Your task to perform on an android device: Clear all items from cart on ebay.com. Add logitech g903 to the cart on ebay.com, then select checkout. Image 0: 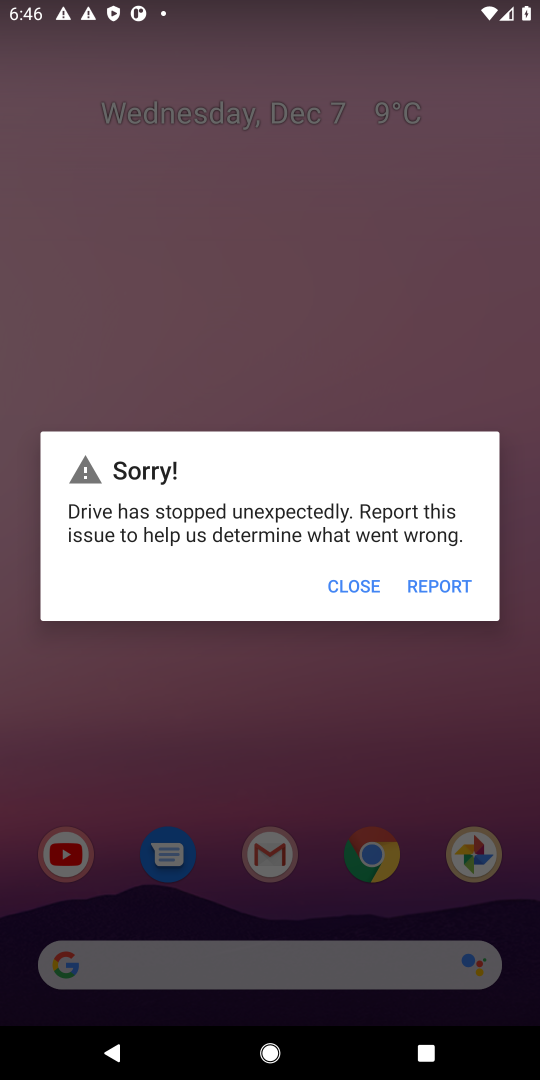
Step 0: click (353, 576)
Your task to perform on an android device: Clear all items from cart on ebay.com. Add logitech g903 to the cart on ebay.com, then select checkout. Image 1: 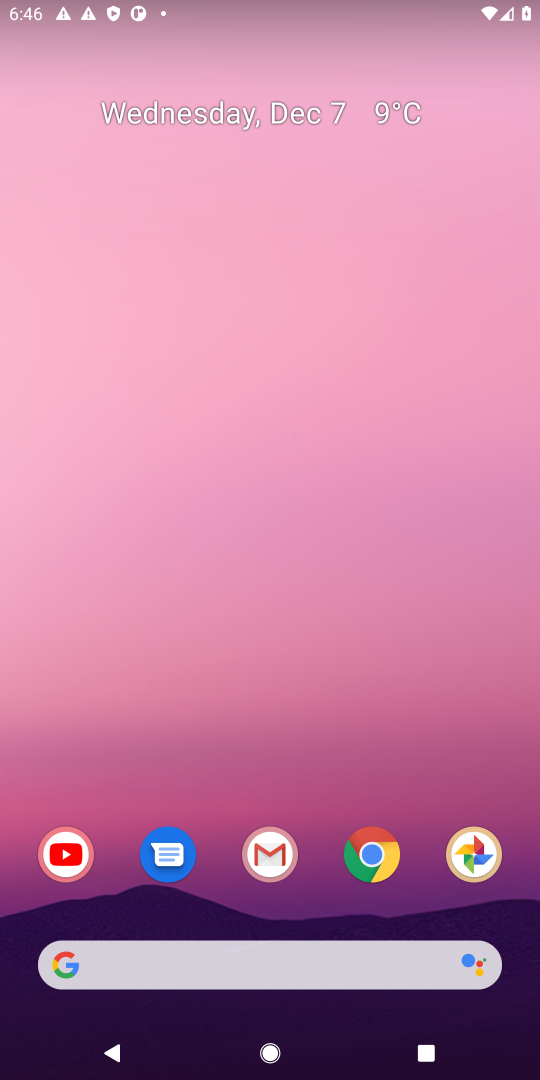
Step 1: click (238, 962)
Your task to perform on an android device: Clear all items from cart on ebay.com. Add logitech g903 to the cart on ebay.com, then select checkout. Image 2: 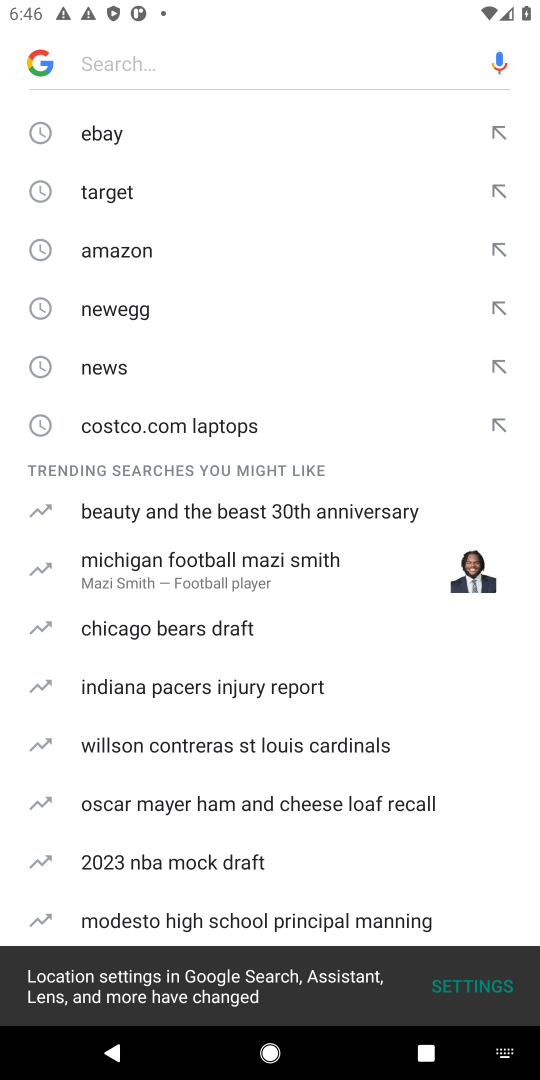
Step 2: click (235, 120)
Your task to perform on an android device: Clear all items from cart on ebay.com. Add logitech g903 to the cart on ebay.com, then select checkout. Image 3: 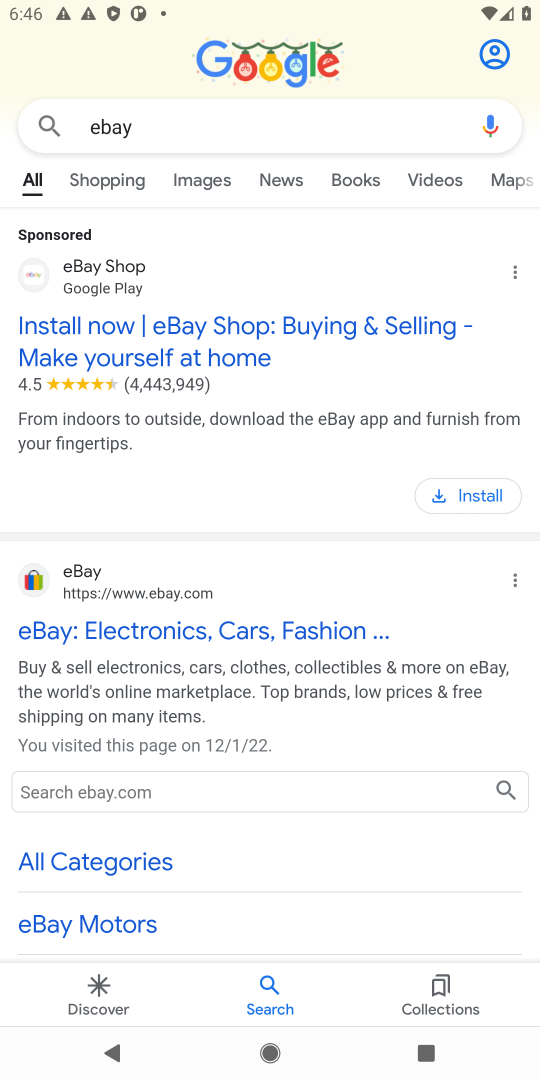
Step 3: click (121, 624)
Your task to perform on an android device: Clear all items from cart on ebay.com. Add logitech g903 to the cart on ebay.com, then select checkout. Image 4: 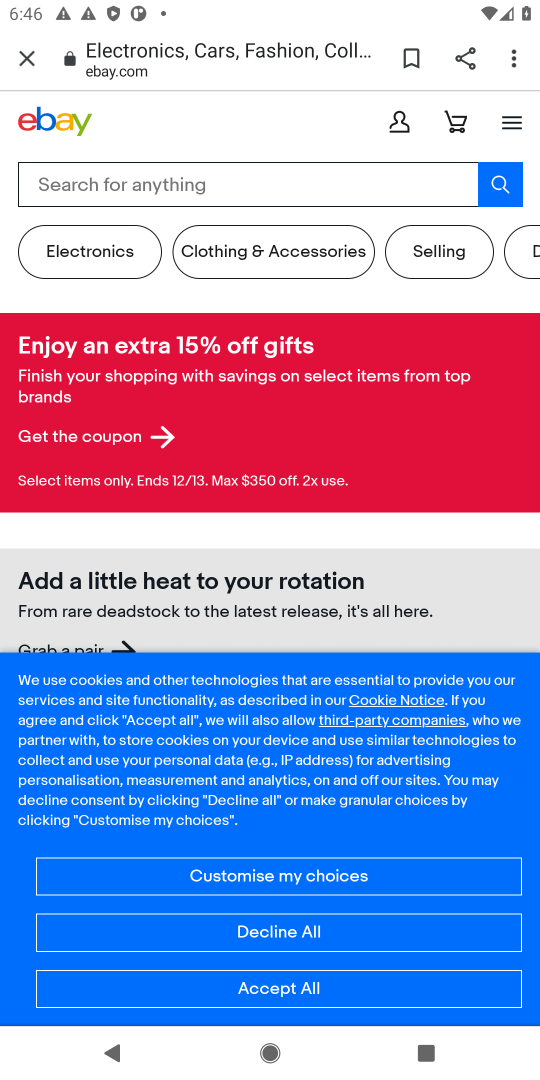
Step 4: click (244, 188)
Your task to perform on an android device: Clear all items from cart on ebay.com. Add logitech g903 to the cart on ebay.com, then select checkout. Image 5: 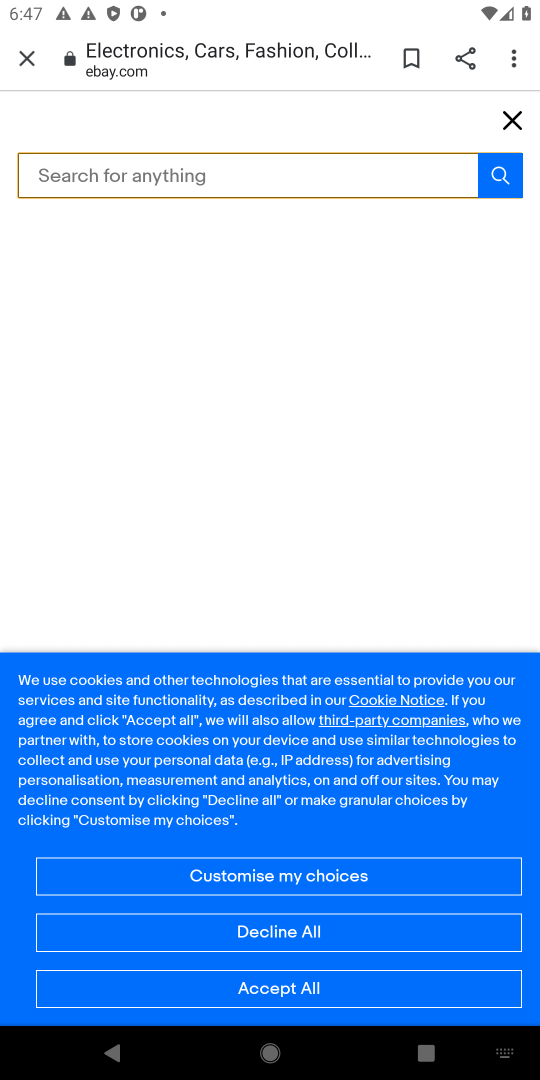
Step 5: type "logitech g 903"
Your task to perform on an android device: Clear all items from cart on ebay.com. Add logitech g903 to the cart on ebay.com, then select checkout. Image 6: 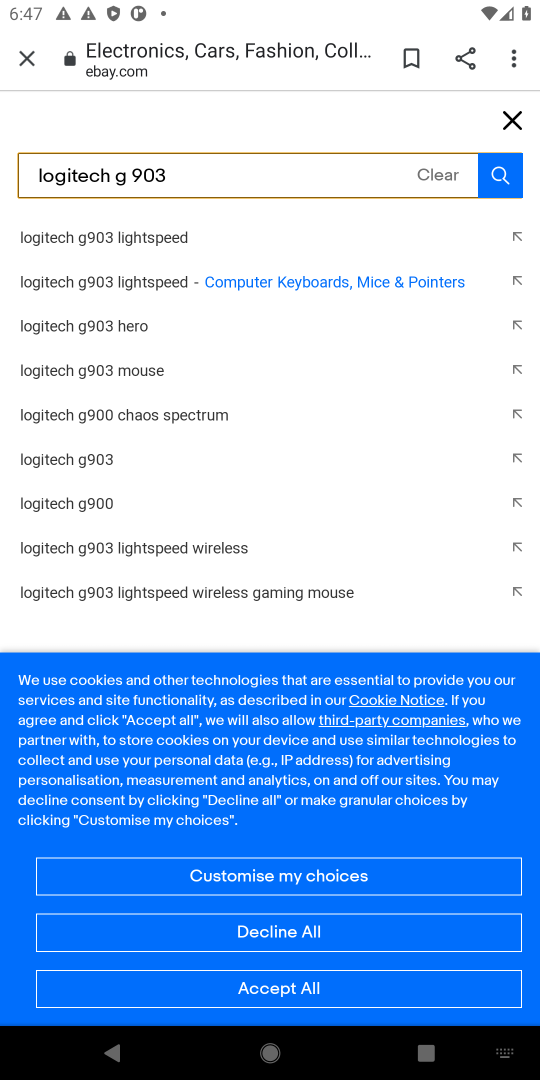
Step 6: click (490, 179)
Your task to perform on an android device: Clear all items from cart on ebay.com. Add logitech g903 to the cart on ebay.com, then select checkout. Image 7: 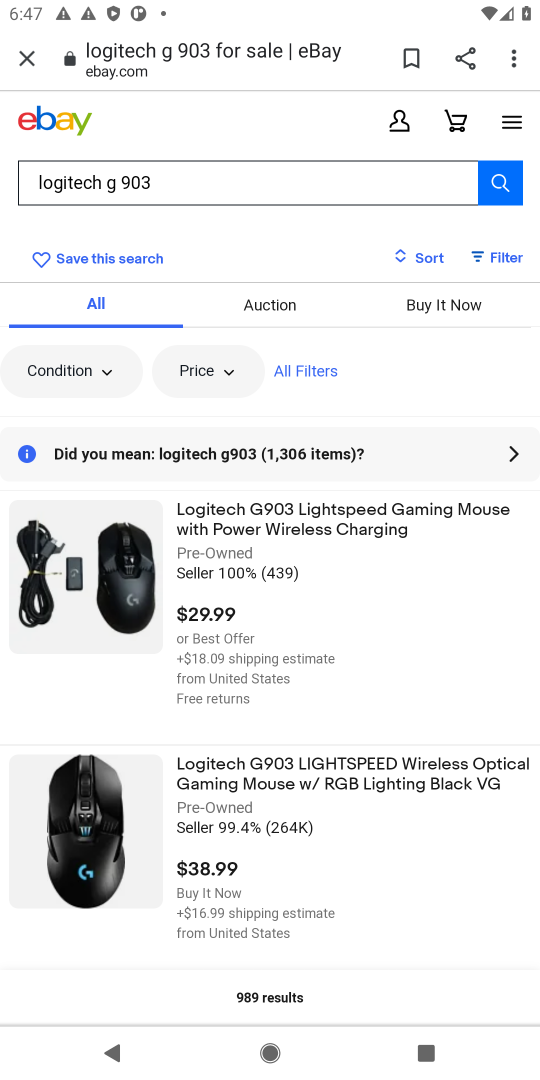
Step 7: click (199, 541)
Your task to perform on an android device: Clear all items from cart on ebay.com. Add logitech g903 to the cart on ebay.com, then select checkout. Image 8: 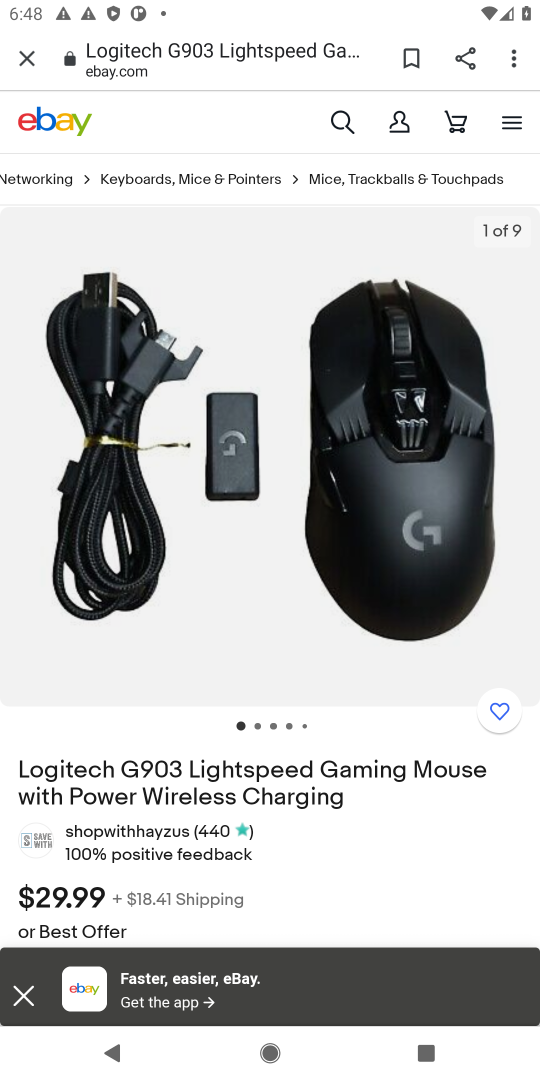
Step 8: drag from (352, 856) to (386, 432)
Your task to perform on an android device: Clear all items from cart on ebay.com. Add logitech g903 to the cart on ebay.com, then select checkout. Image 9: 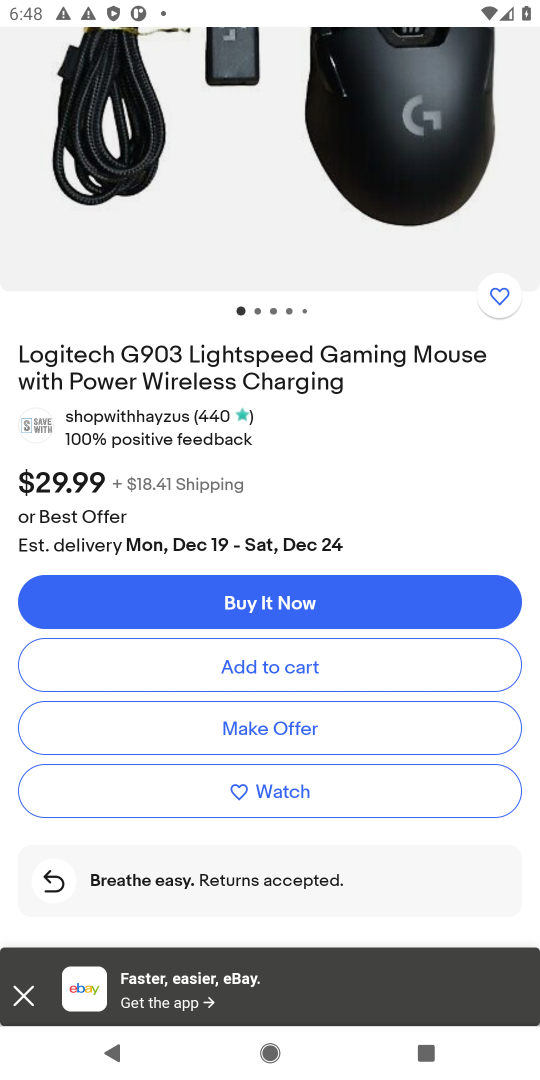
Step 9: click (390, 665)
Your task to perform on an android device: Clear all items from cart on ebay.com. Add logitech g903 to the cart on ebay.com, then select checkout. Image 10: 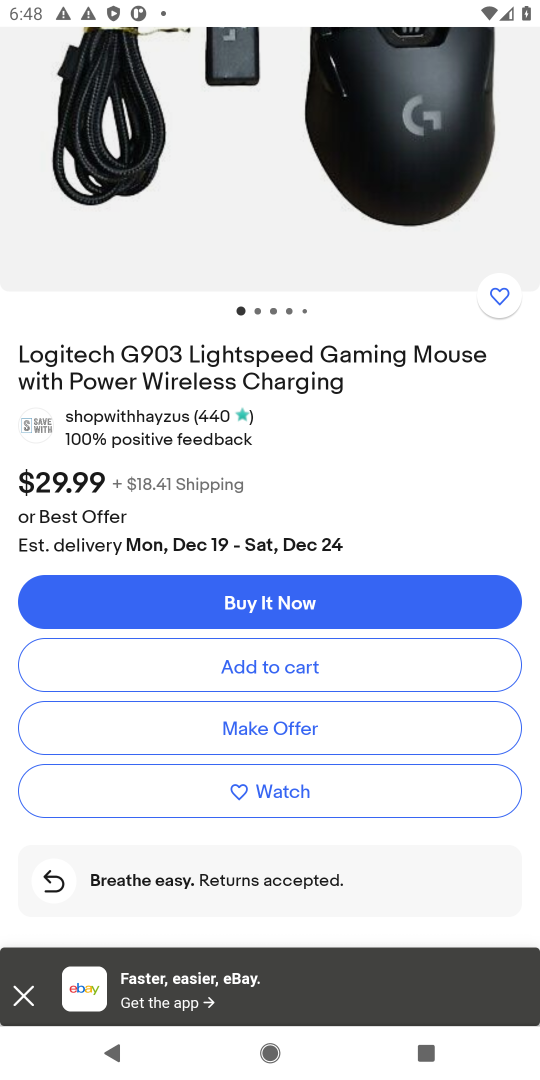
Step 10: task complete